Your task to perform on an android device: turn off sleep mode Image 0: 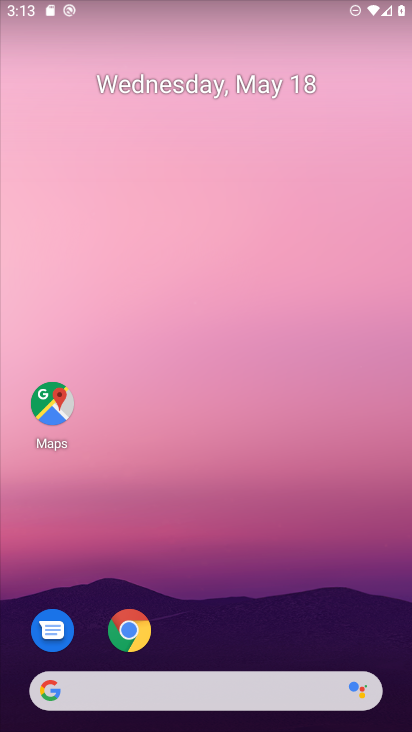
Step 0: drag from (187, 642) to (222, 268)
Your task to perform on an android device: turn off sleep mode Image 1: 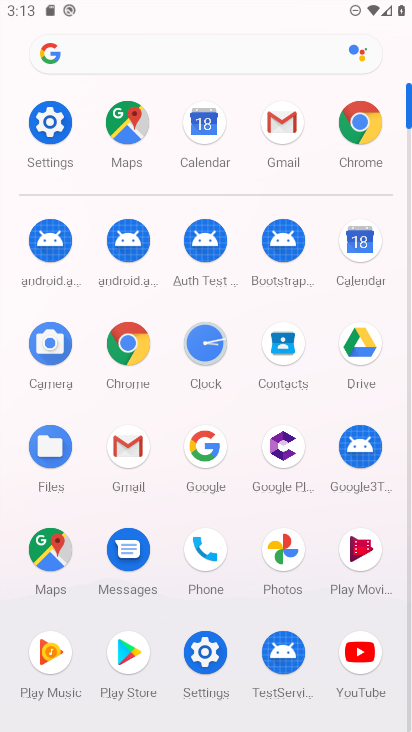
Step 1: click (47, 115)
Your task to perform on an android device: turn off sleep mode Image 2: 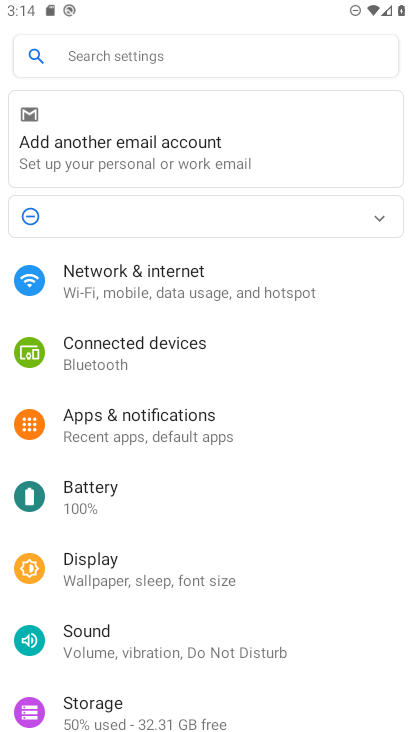
Step 2: click (69, 574)
Your task to perform on an android device: turn off sleep mode Image 3: 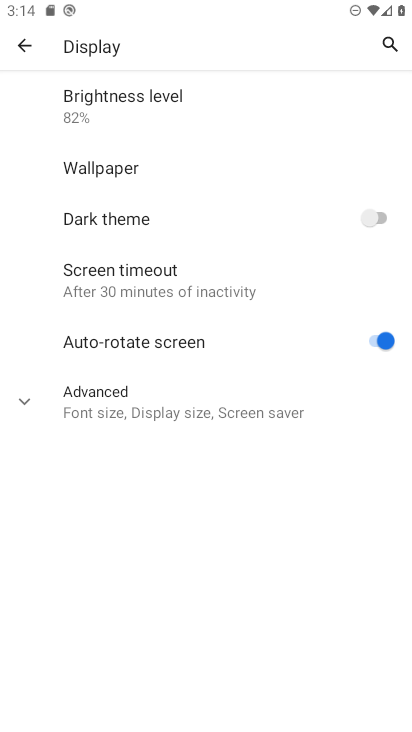
Step 3: click (117, 409)
Your task to perform on an android device: turn off sleep mode Image 4: 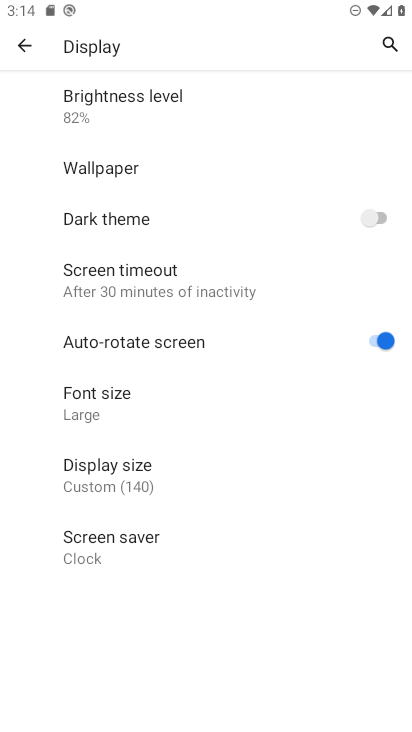
Step 4: task complete